Your task to perform on an android device: turn vacation reply on in the gmail app Image 0: 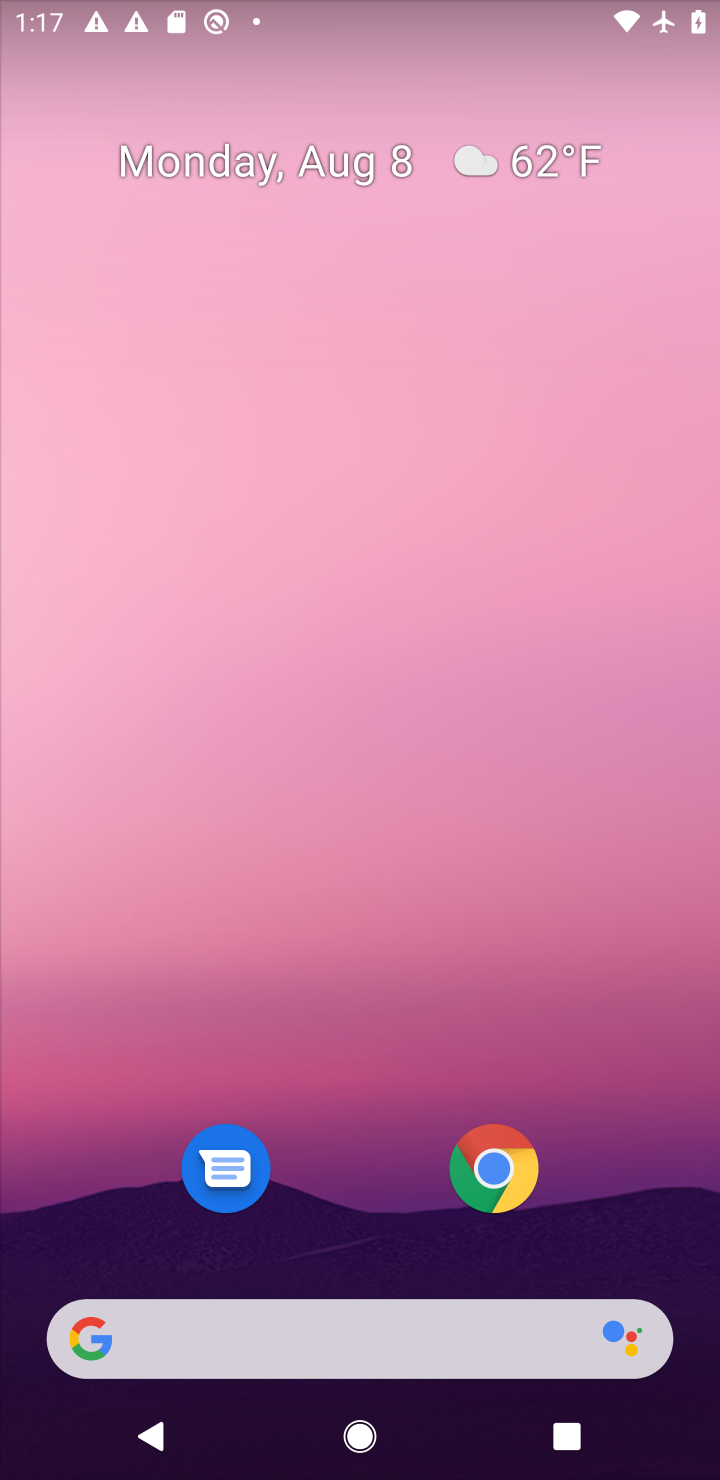
Step 0: drag from (288, 590) to (357, 98)
Your task to perform on an android device: turn vacation reply on in the gmail app Image 1: 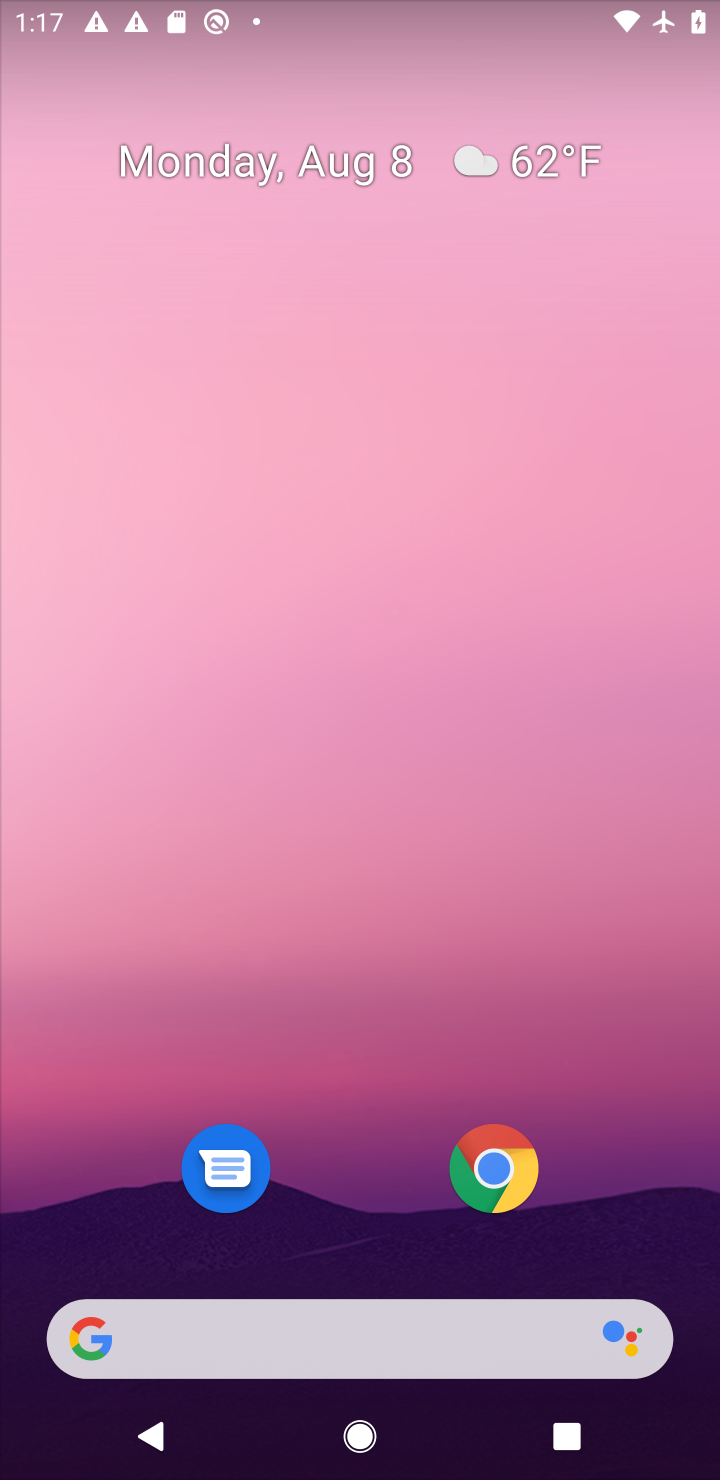
Step 1: drag from (367, 1280) to (378, 16)
Your task to perform on an android device: turn vacation reply on in the gmail app Image 2: 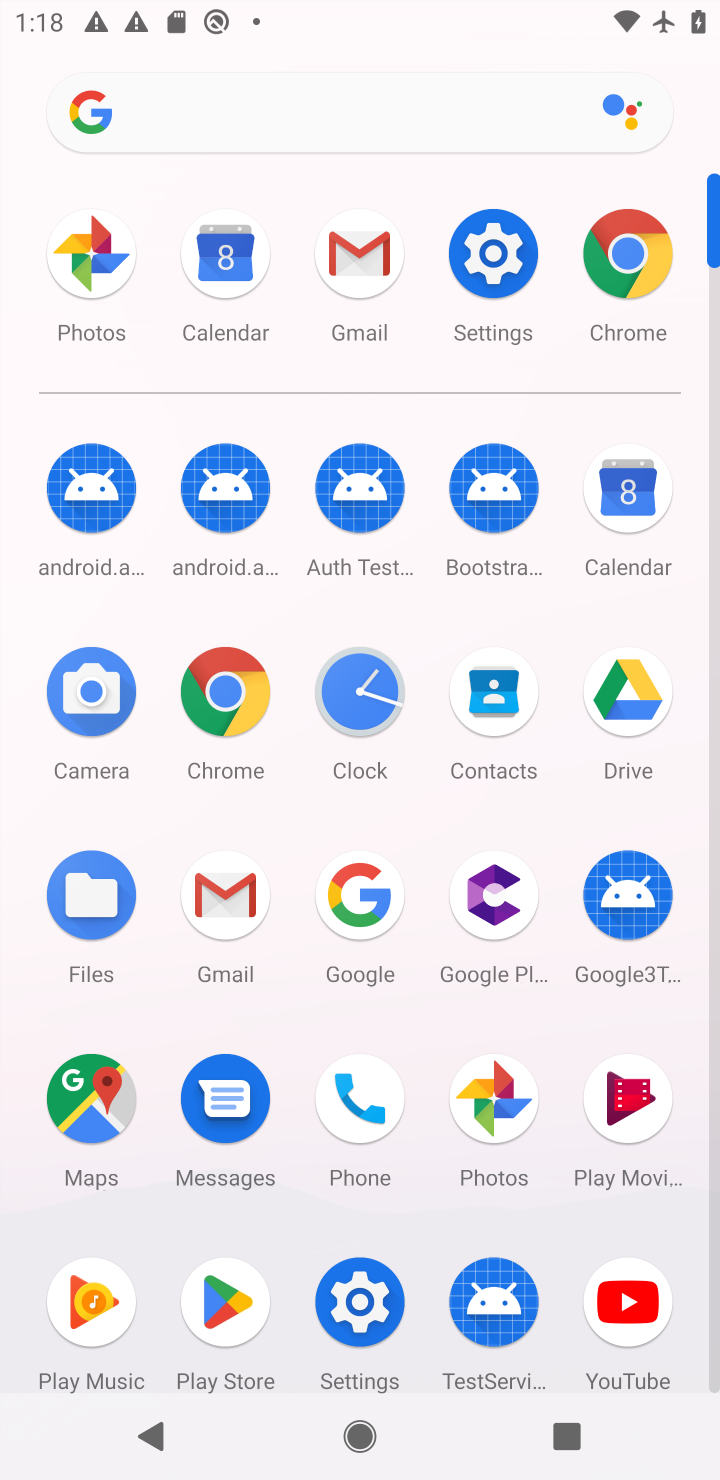
Step 2: click (384, 300)
Your task to perform on an android device: turn vacation reply on in the gmail app Image 3: 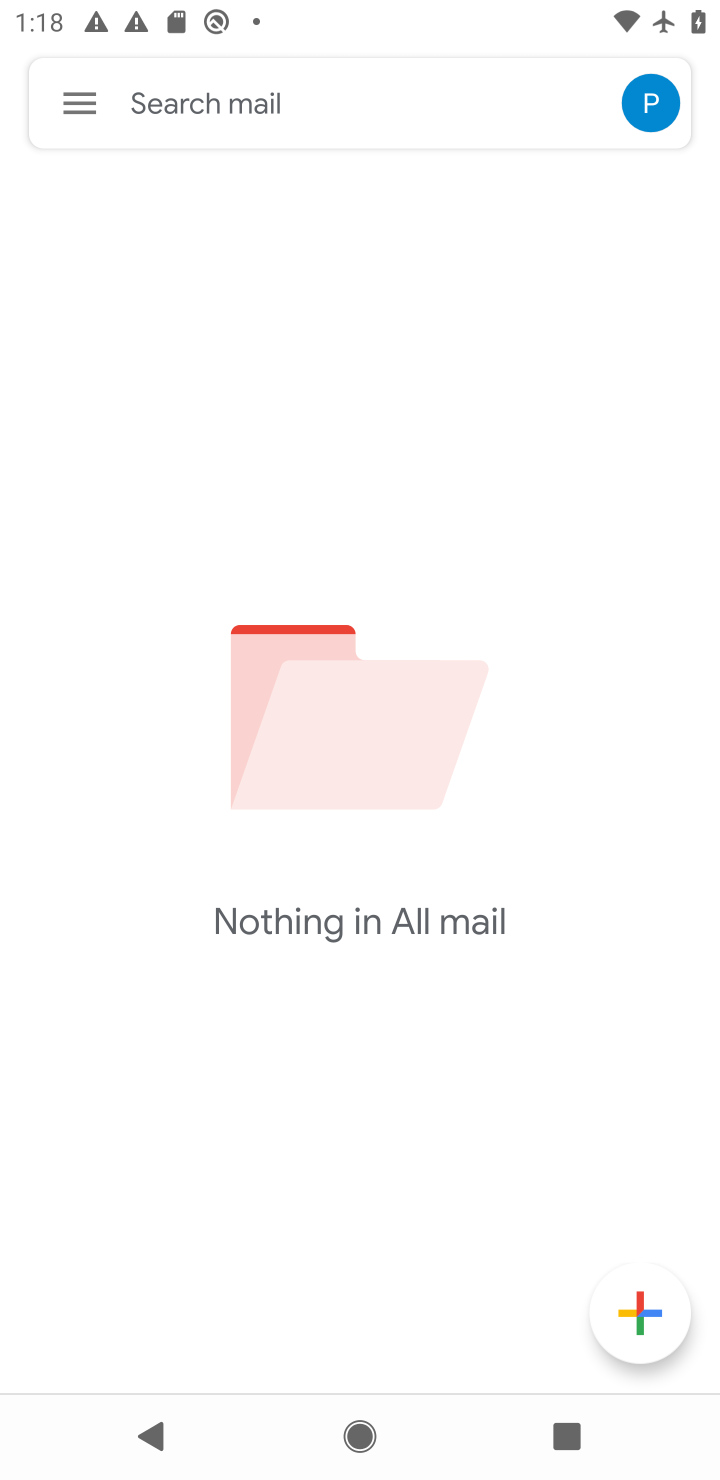
Step 3: click (61, 109)
Your task to perform on an android device: turn vacation reply on in the gmail app Image 4: 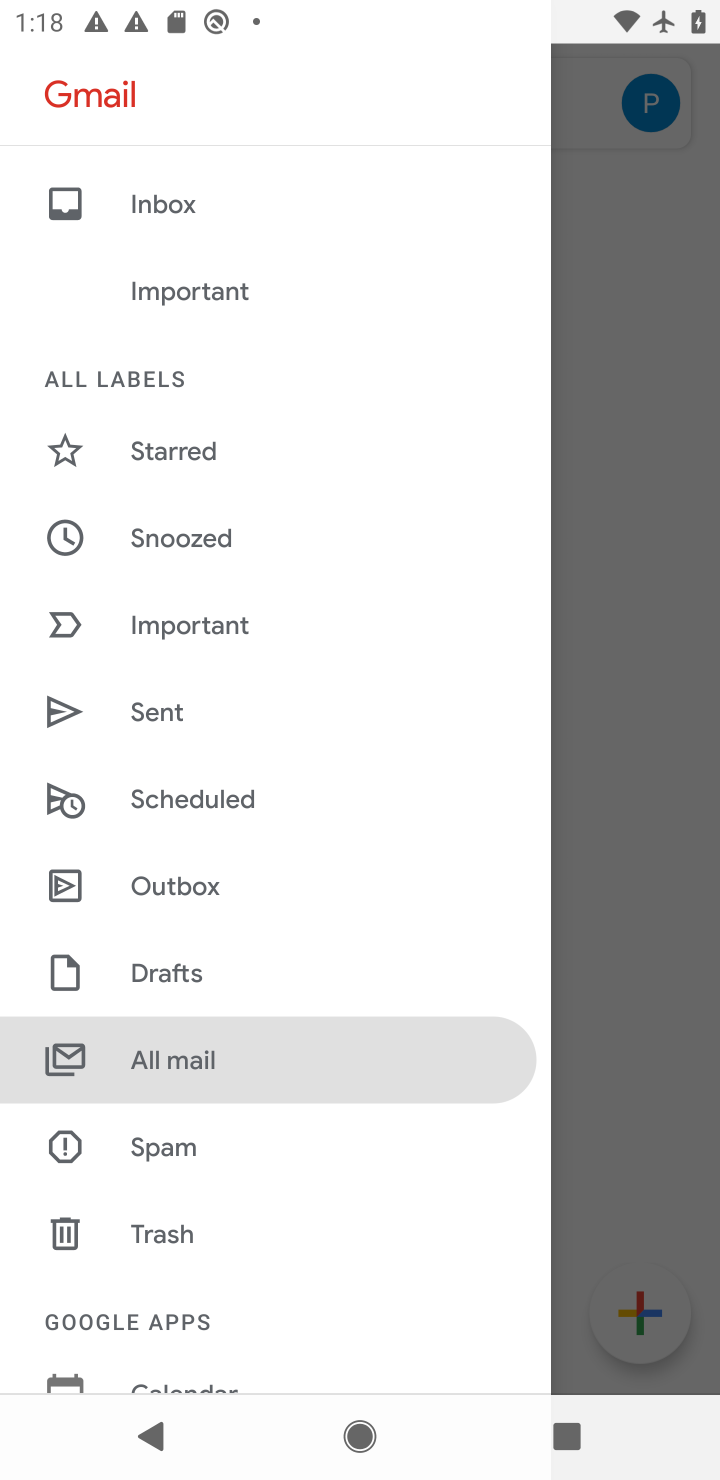
Step 4: task complete